Your task to perform on an android device: Open the phone app and click the voicemail tab. Image 0: 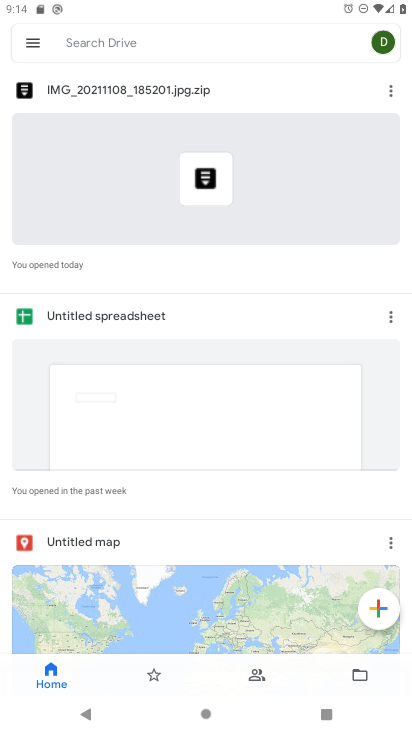
Step 0: press home button
Your task to perform on an android device: Open the phone app and click the voicemail tab. Image 1: 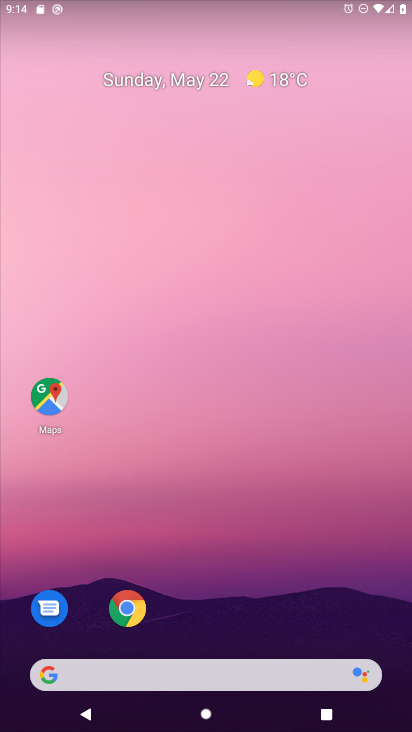
Step 1: drag from (235, 720) to (170, 1)
Your task to perform on an android device: Open the phone app and click the voicemail tab. Image 2: 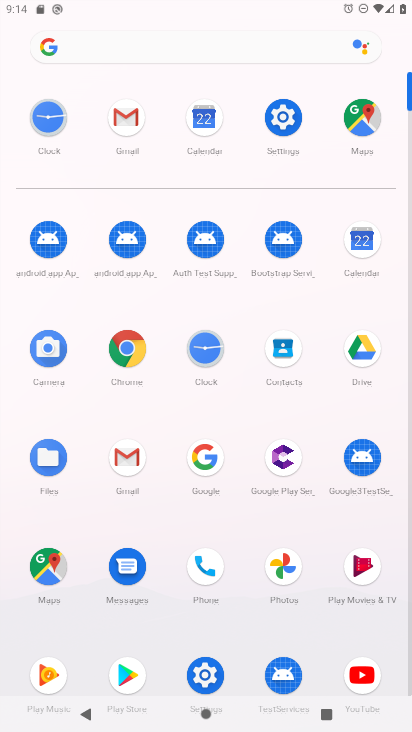
Step 2: click (200, 565)
Your task to perform on an android device: Open the phone app and click the voicemail tab. Image 3: 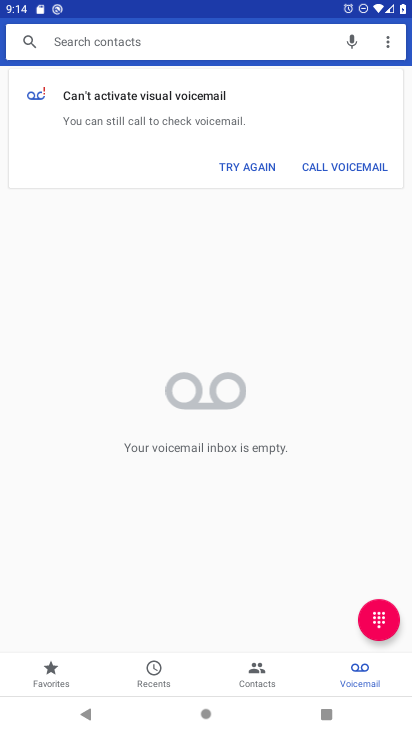
Step 3: task complete